Your task to perform on an android device: visit the assistant section in the google photos Image 0: 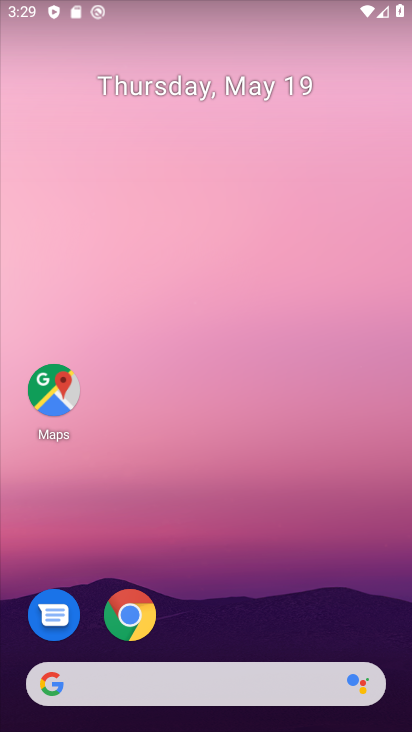
Step 0: drag from (315, 640) to (283, 6)
Your task to perform on an android device: visit the assistant section in the google photos Image 1: 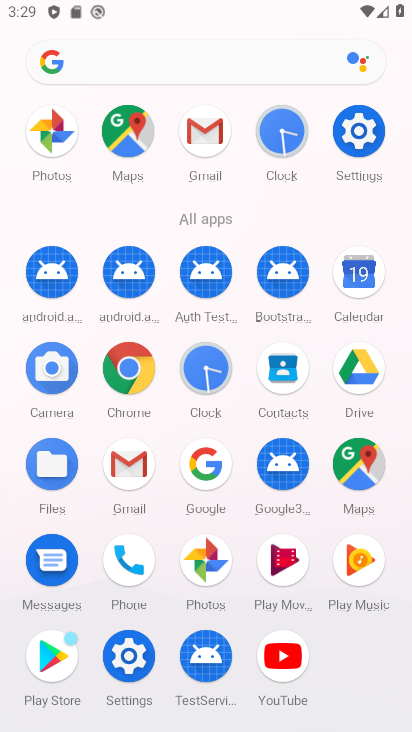
Step 1: click (38, 134)
Your task to perform on an android device: visit the assistant section in the google photos Image 2: 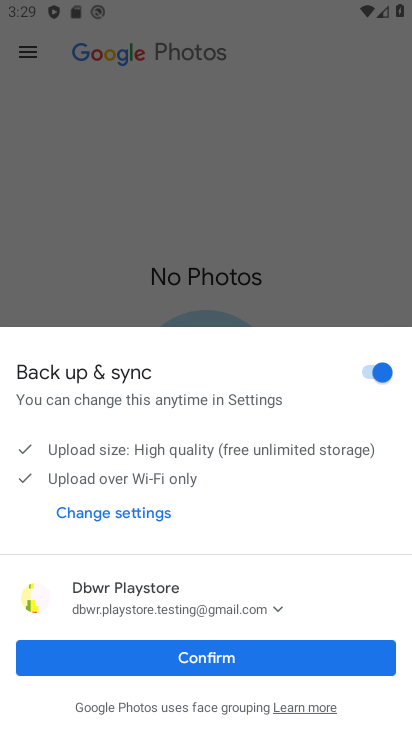
Step 2: click (228, 658)
Your task to perform on an android device: visit the assistant section in the google photos Image 3: 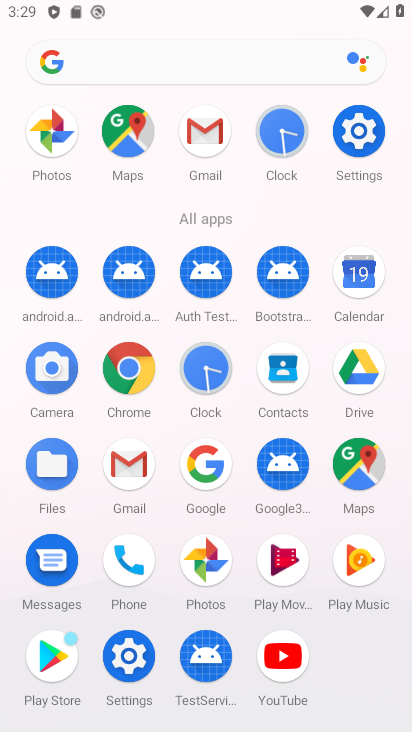
Step 3: click (49, 138)
Your task to perform on an android device: visit the assistant section in the google photos Image 4: 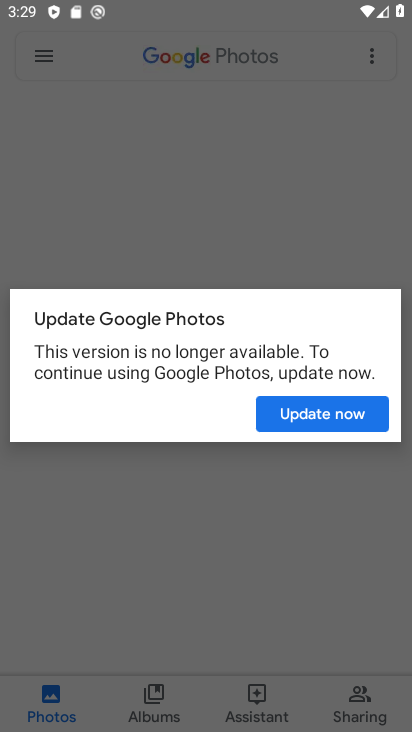
Step 4: click (319, 409)
Your task to perform on an android device: visit the assistant section in the google photos Image 5: 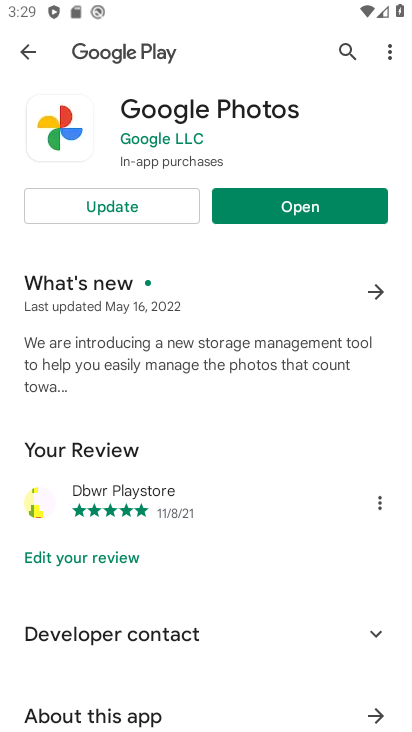
Step 5: click (294, 212)
Your task to perform on an android device: visit the assistant section in the google photos Image 6: 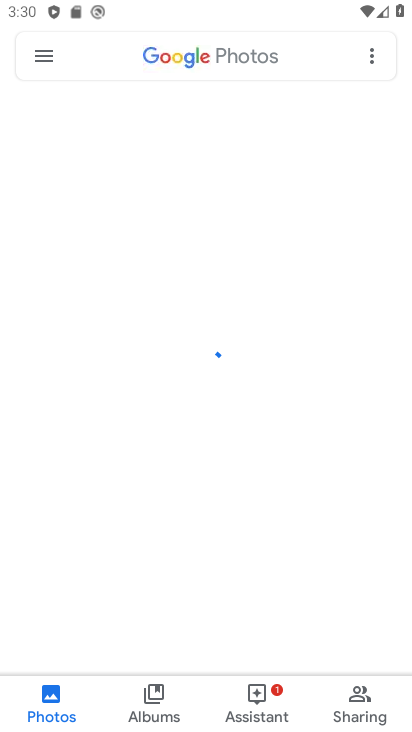
Step 6: click (257, 701)
Your task to perform on an android device: visit the assistant section in the google photos Image 7: 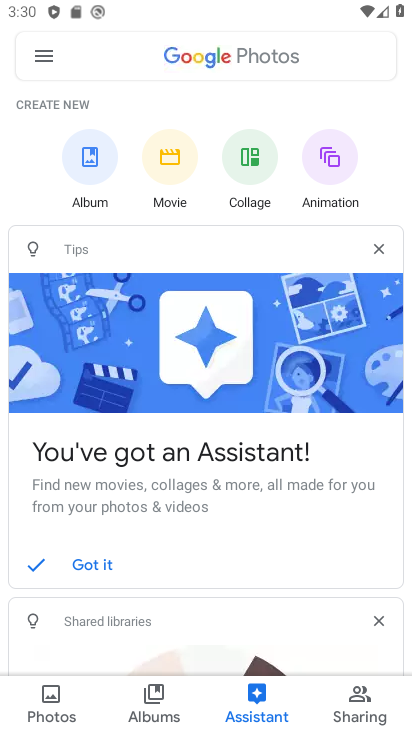
Step 7: task complete